Your task to perform on an android device: Toggle the flashlight Image 0: 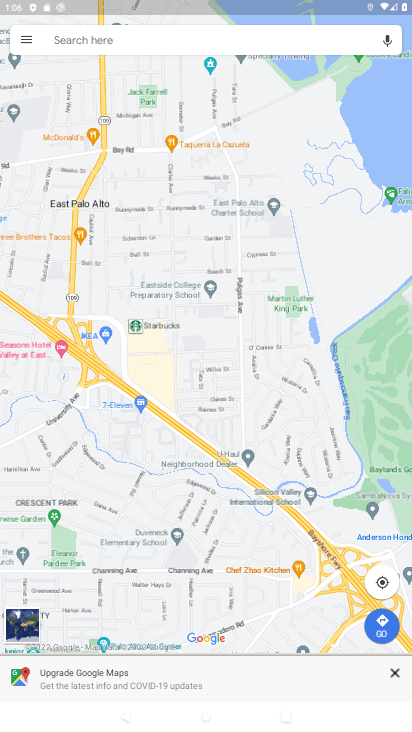
Step 0: press home button
Your task to perform on an android device: Toggle the flashlight Image 1: 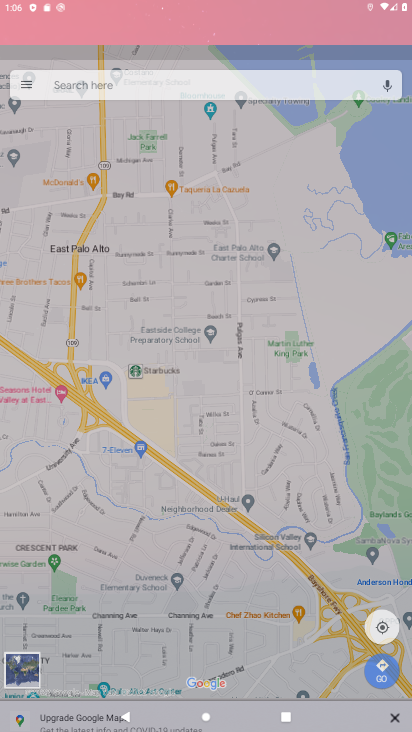
Step 1: drag from (202, 599) to (180, 1)
Your task to perform on an android device: Toggle the flashlight Image 2: 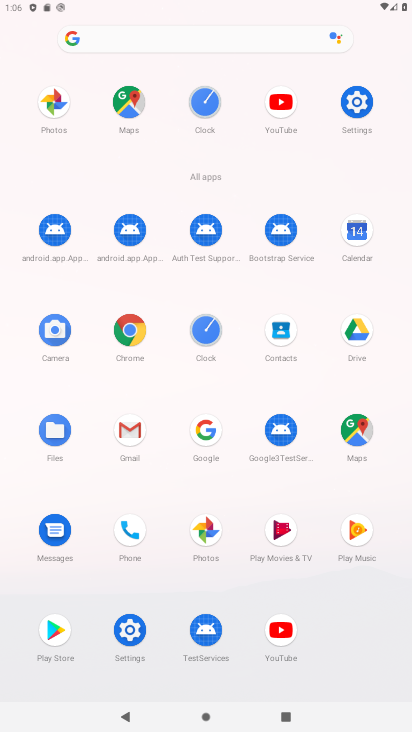
Step 2: click (361, 105)
Your task to perform on an android device: Toggle the flashlight Image 3: 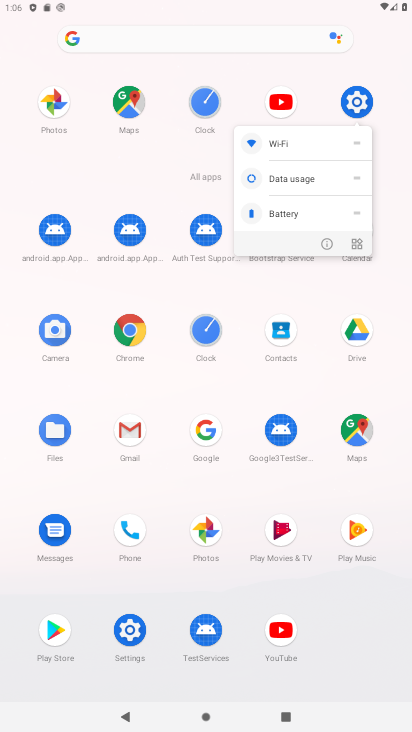
Step 3: click (325, 244)
Your task to perform on an android device: Toggle the flashlight Image 4: 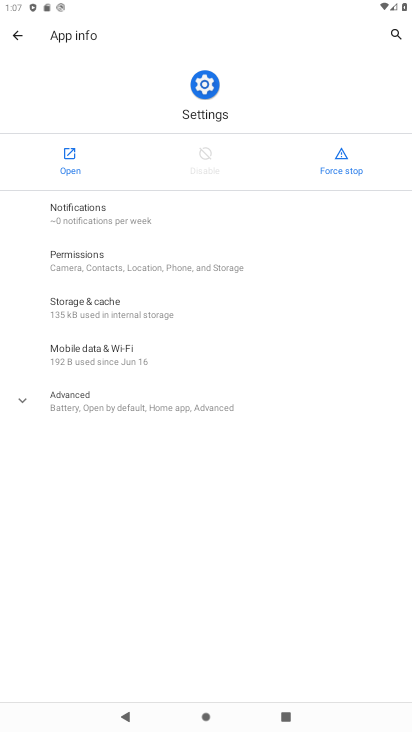
Step 4: click (70, 151)
Your task to perform on an android device: Toggle the flashlight Image 5: 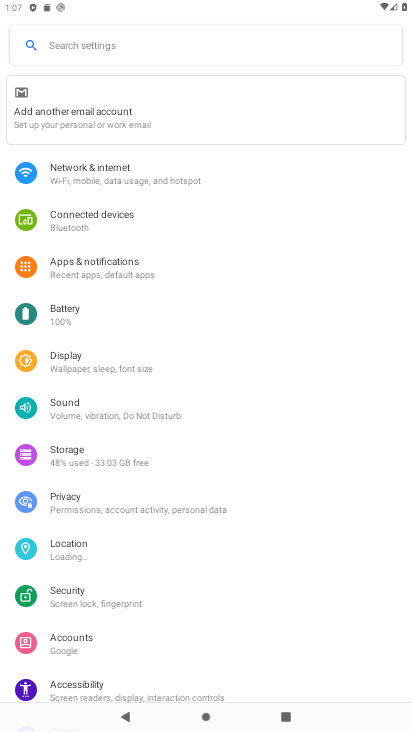
Step 5: drag from (163, 215) to (362, 680)
Your task to perform on an android device: Toggle the flashlight Image 6: 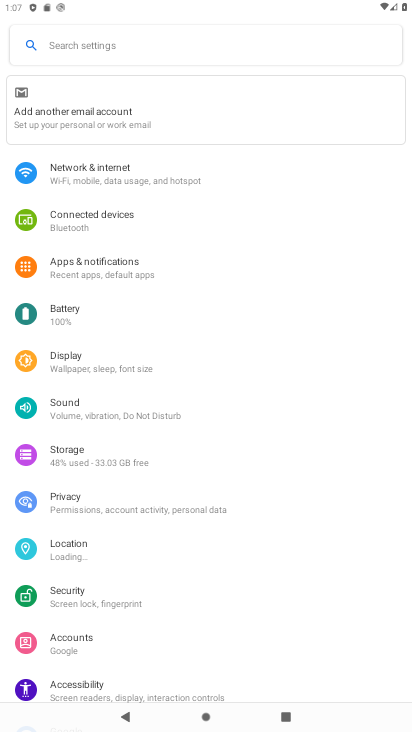
Step 6: click (113, 58)
Your task to perform on an android device: Toggle the flashlight Image 7: 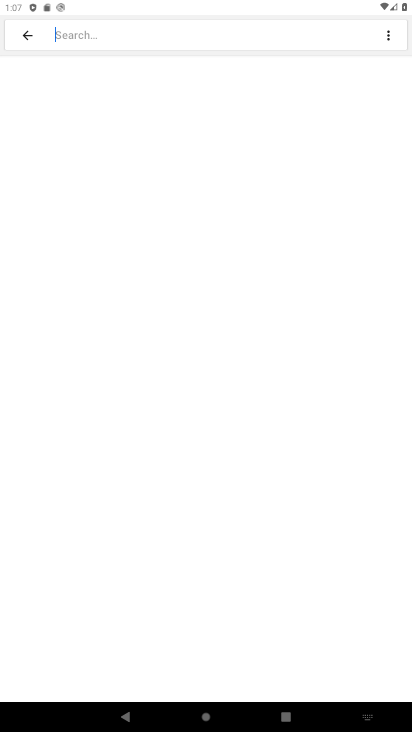
Step 7: type "flashlight"
Your task to perform on an android device: Toggle the flashlight Image 8: 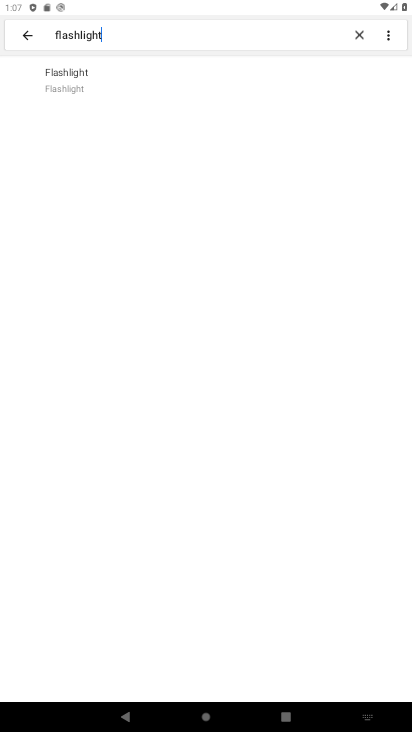
Step 8: click (88, 80)
Your task to perform on an android device: Toggle the flashlight Image 9: 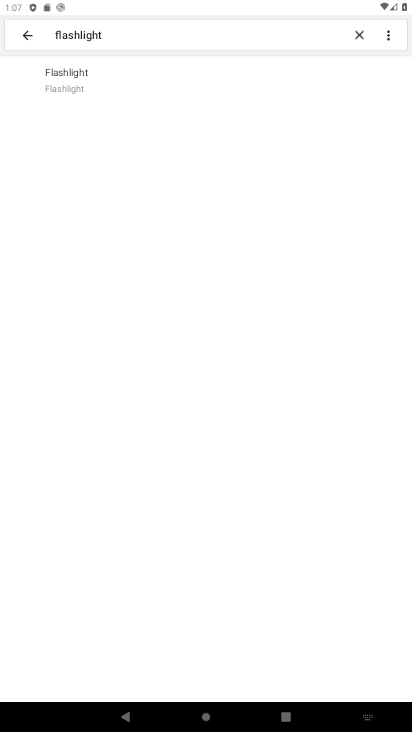
Step 9: click (88, 80)
Your task to perform on an android device: Toggle the flashlight Image 10: 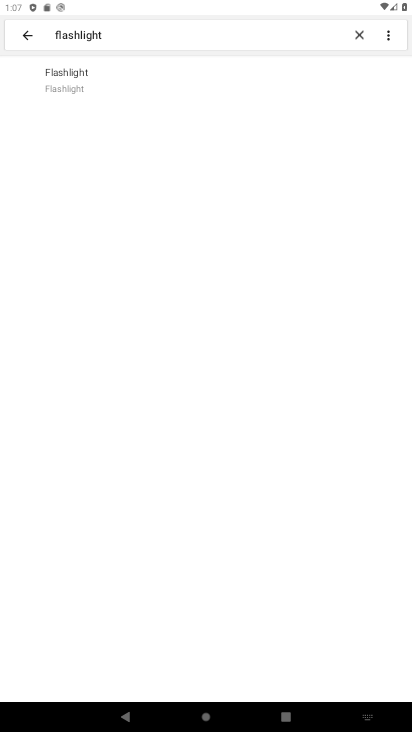
Step 10: task complete